Your task to perform on an android device: all mails in gmail Image 0: 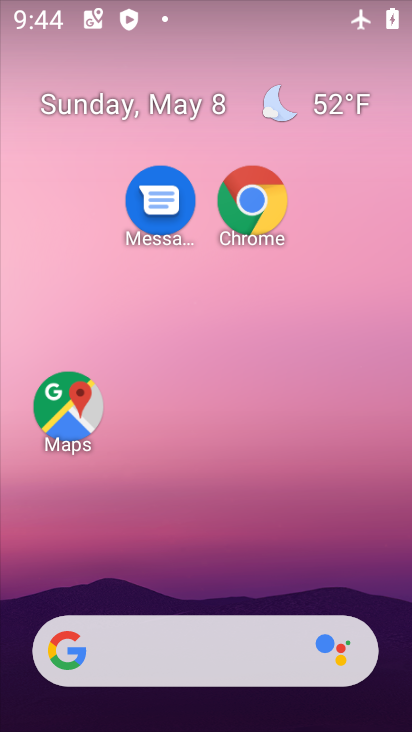
Step 0: drag from (195, 592) to (122, 4)
Your task to perform on an android device: all mails in gmail Image 1: 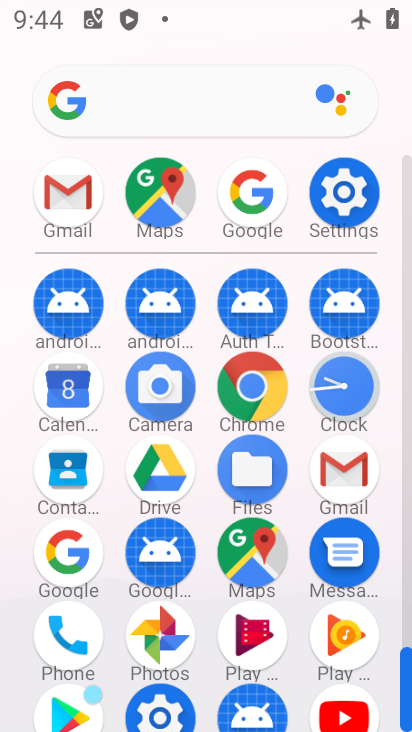
Step 1: click (341, 460)
Your task to perform on an android device: all mails in gmail Image 2: 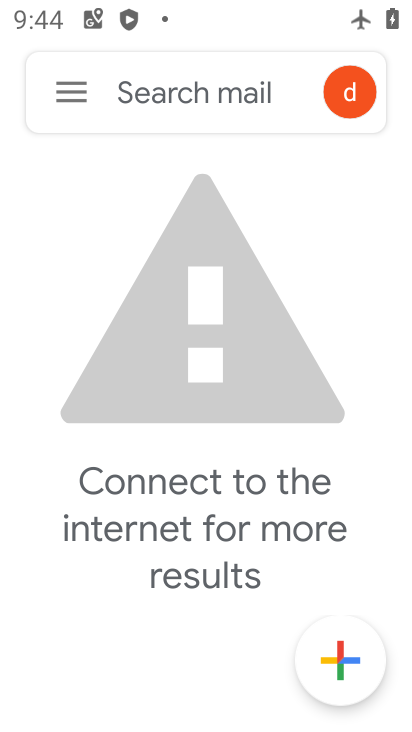
Step 2: click (53, 81)
Your task to perform on an android device: all mails in gmail Image 3: 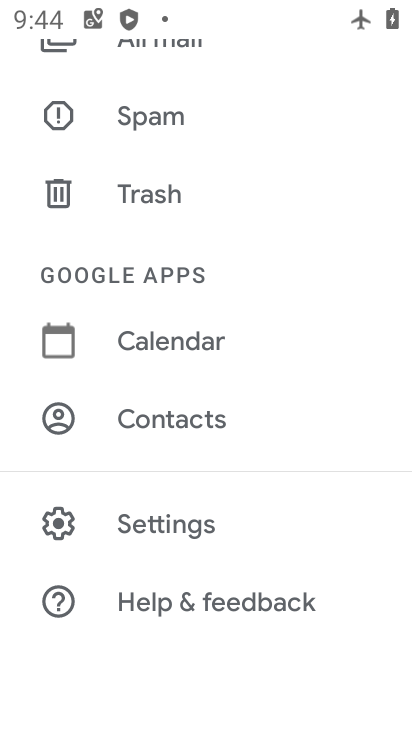
Step 3: click (136, 61)
Your task to perform on an android device: all mails in gmail Image 4: 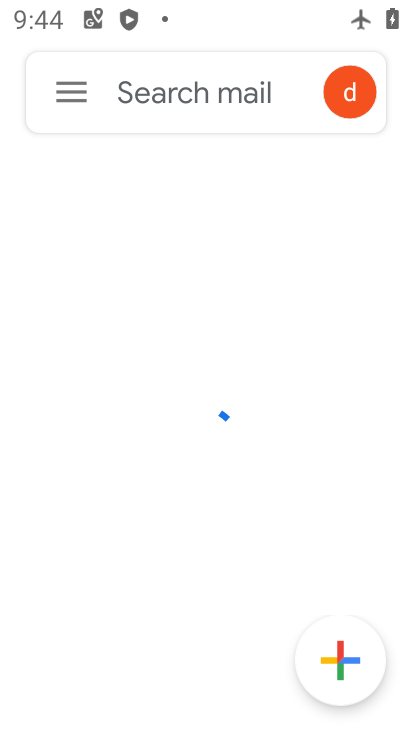
Step 4: task complete